Your task to perform on an android device: toggle translation in the chrome app Image 0: 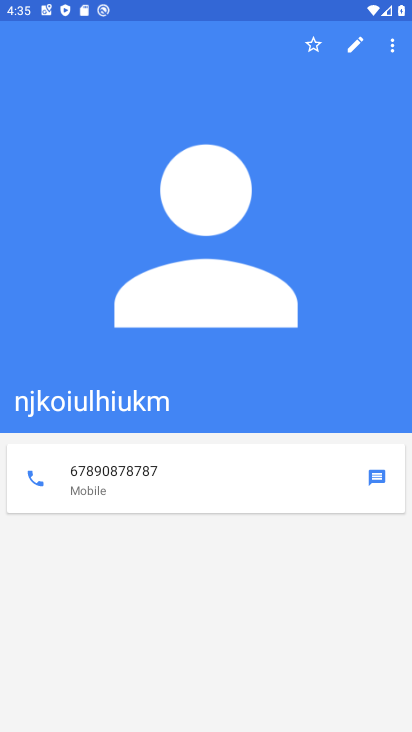
Step 0: press home button
Your task to perform on an android device: toggle translation in the chrome app Image 1: 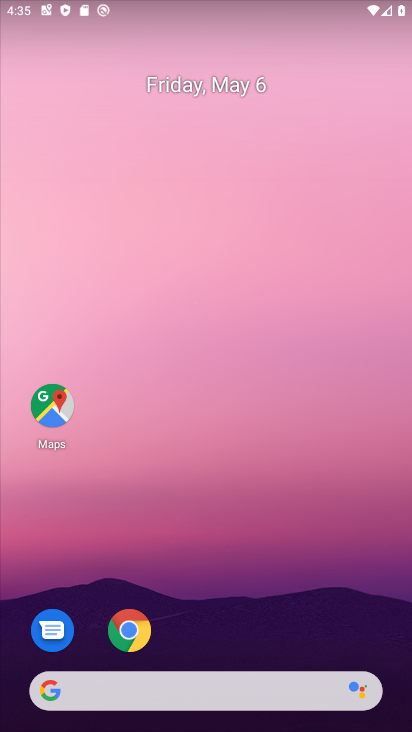
Step 1: click (130, 638)
Your task to perform on an android device: toggle translation in the chrome app Image 2: 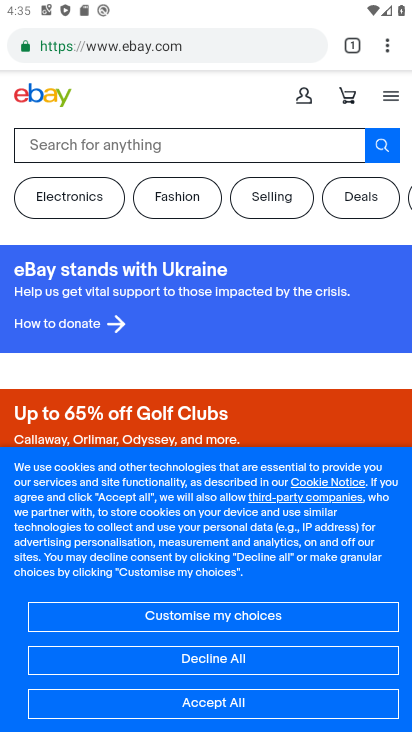
Step 2: click (395, 49)
Your task to perform on an android device: toggle translation in the chrome app Image 3: 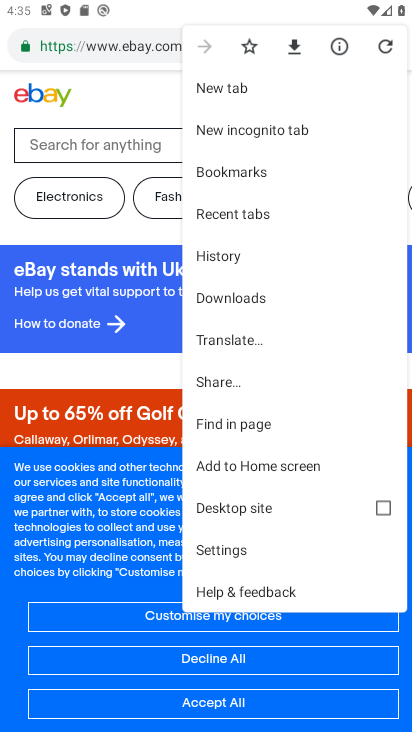
Step 3: click (269, 555)
Your task to perform on an android device: toggle translation in the chrome app Image 4: 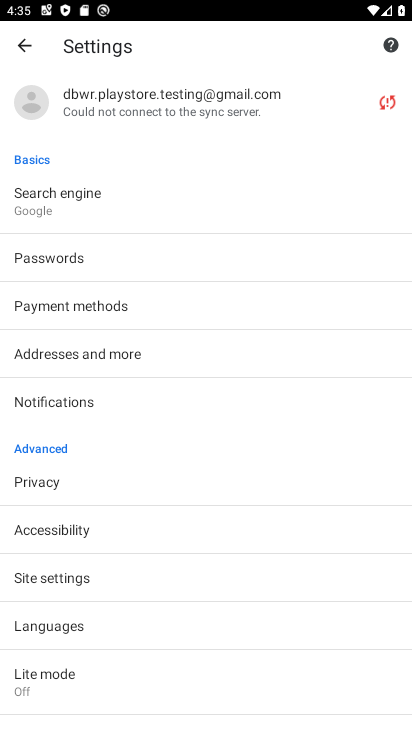
Step 4: drag from (193, 591) to (236, 458)
Your task to perform on an android device: toggle translation in the chrome app Image 5: 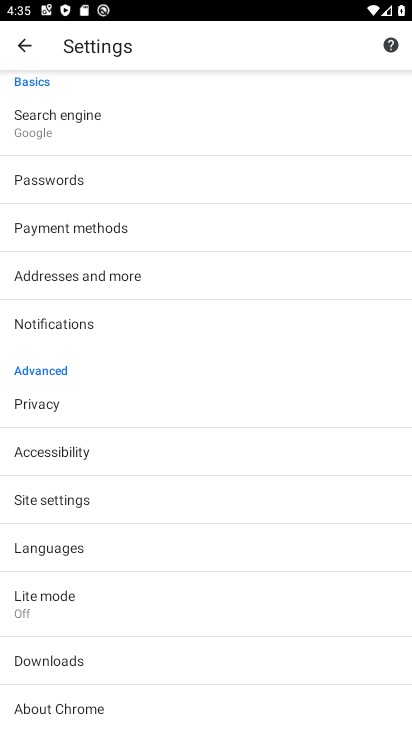
Step 5: click (101, 549)
Your task to perform on an android device: toggle translation in the chrome app Image 6: 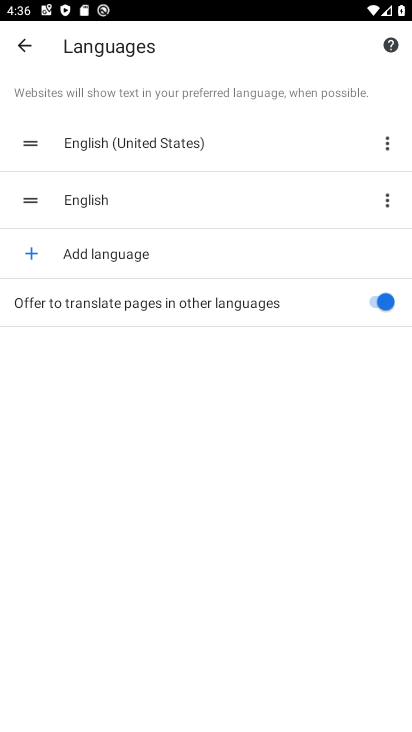
Step 6: click (387, 301)
Your task to perform on an android device: toggle translation in the chrome app Image 7: 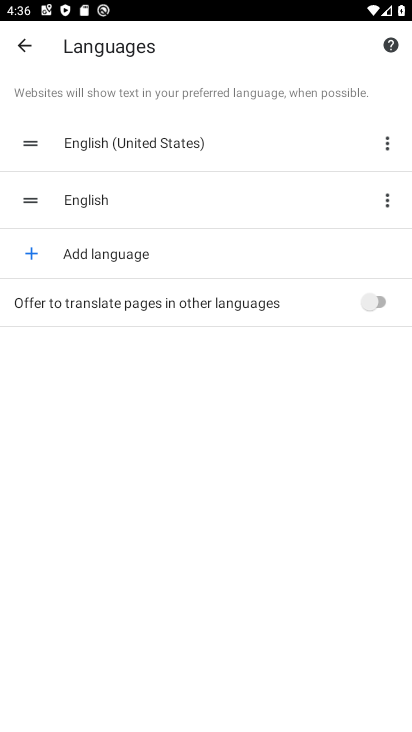
Step 7: task complete